Your task to perform on an android device: toggle notification dots Image 0: 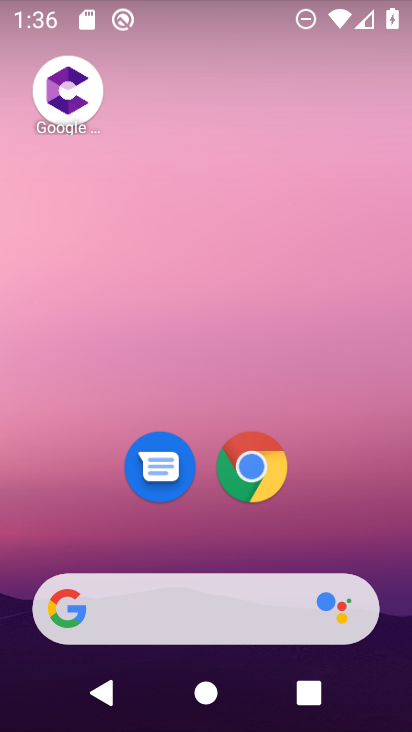
Step 0: drag from (81, 560) to (171, 56)
Your task to perform on an android device: toggle notification dots Image 1: 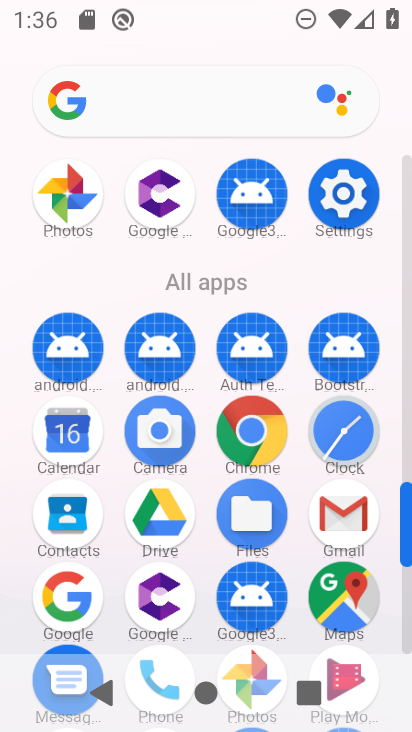
Step 1: drag from (187, 552) to (244, 324)
Your task to perform on an android device: toggle notification dots Image 2: 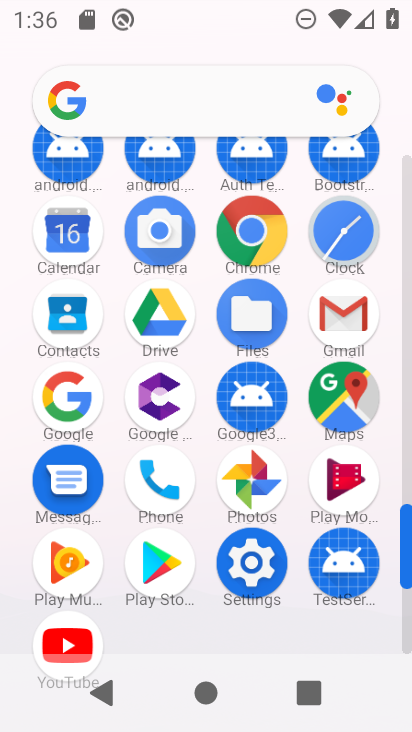
Step 2: click (250, 574)
Your task to perform on an android device: toggle notification dots Image 3: 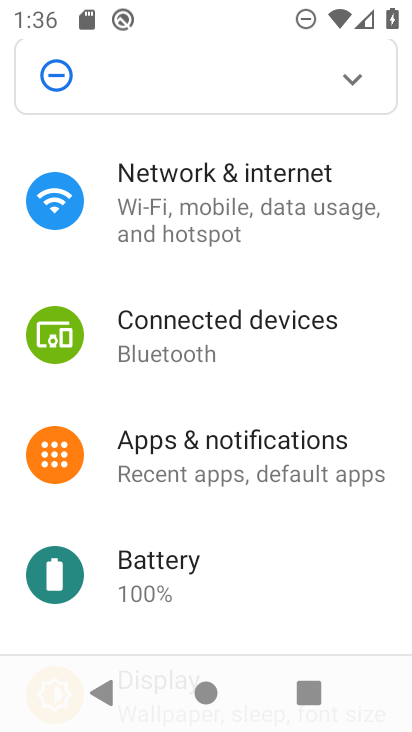
Step 3: drag from (189, 567) to (313, 121)
Your task to perform on an android device: toggle notification dots Image 4: 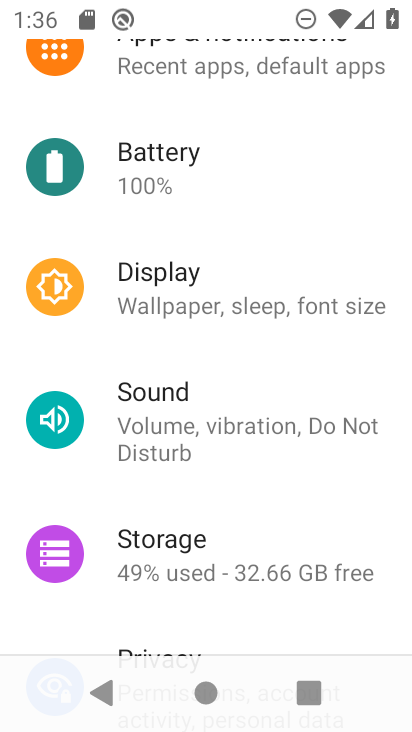
Step 4: click (276, 73)
Your task to perform on an android device: toggle notification dots Image 5: 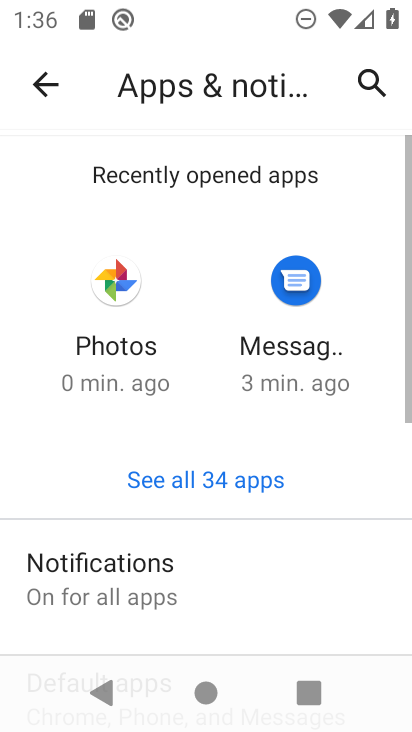
Step 5: drag from (193, 527) to (321, 75)
Your task to perform on an android device: toggle notification dots Image 6: 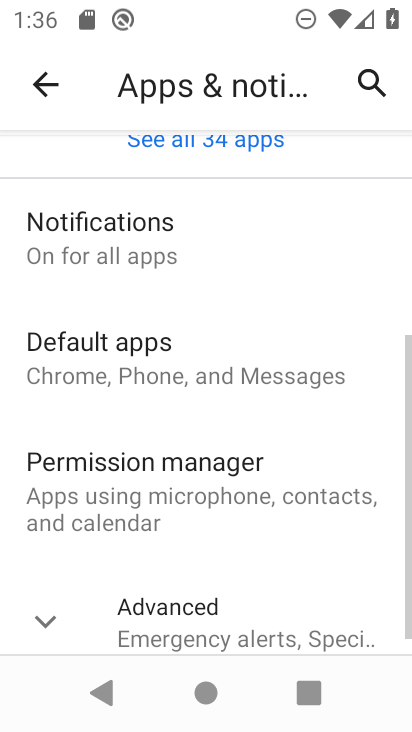
Step 6: drag from (147, 534) to (329, 319)
Your task to perform on an android device: toggle notification dots Image 7: 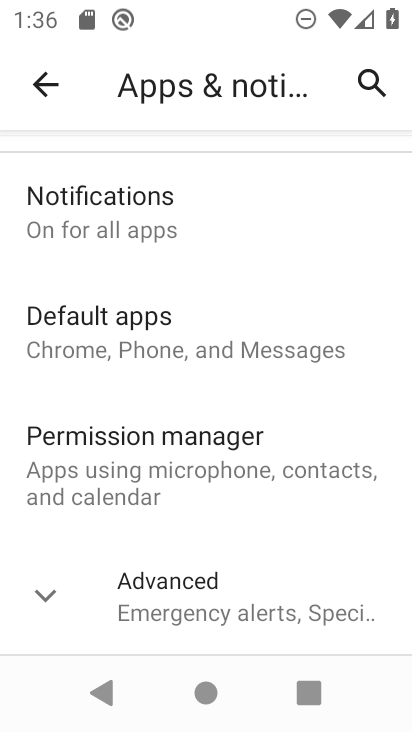
Step 7: click (181, 237)
Your task to perform on an android device: toggle notification dots Image 8: 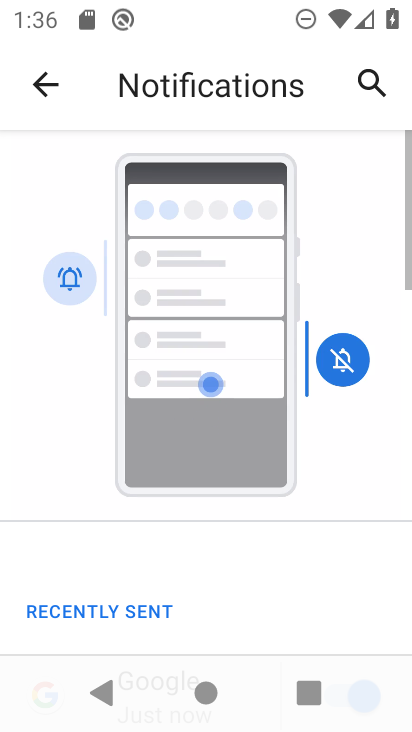
Step 8: drag from (161, 611) to (308, 107)
Your task to perform on an android device: toggle notification dots Image 9: 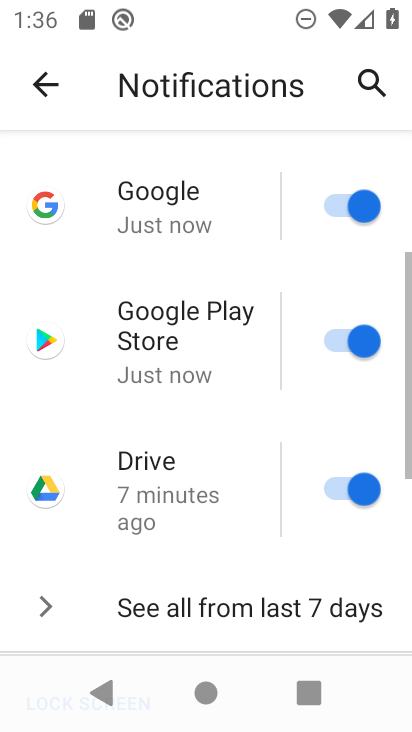
Step 9: drag from (215, 560) to (346, 146)
Your task to perform on an android device: toggle notification dots Image 10: 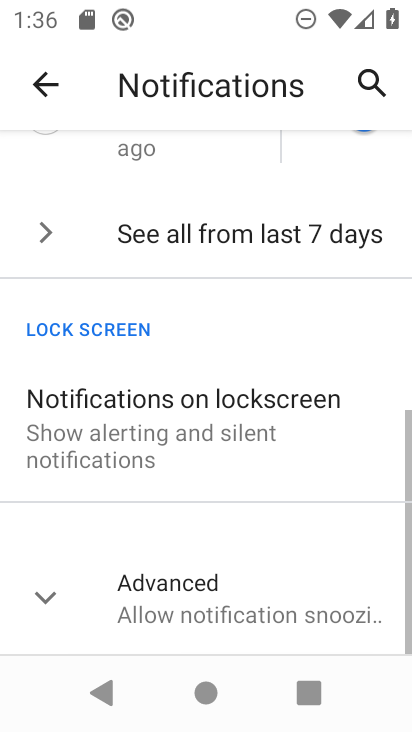
Step 10: click (230, 592)
Your task to perform on an android device: toggle notification dots Image 11: 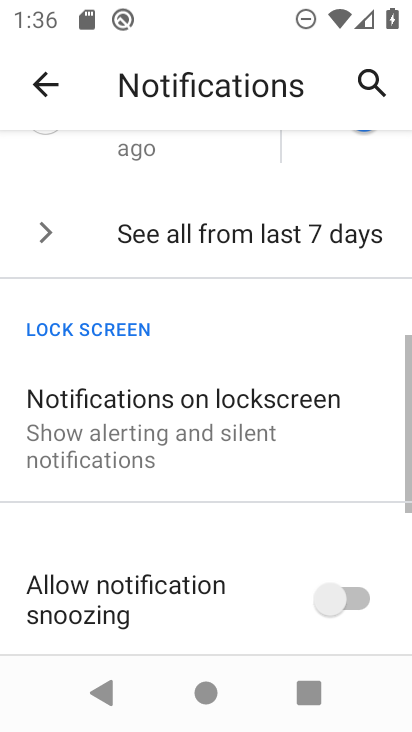
Step 11: drag from (190, 612) to (294, 247)
Your task to perform on an android device: toggle notification dots Image 12: 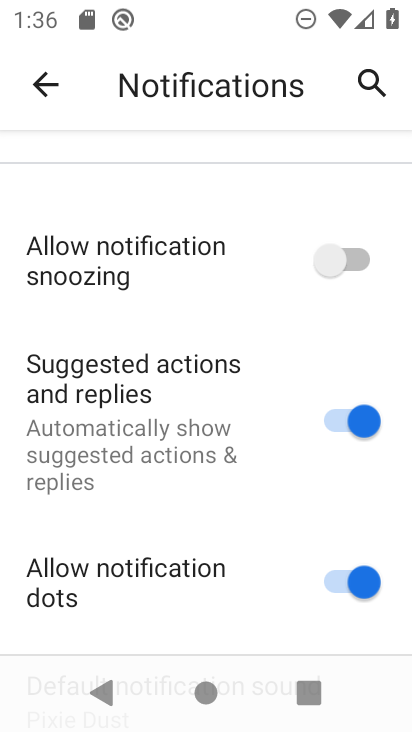
Step 12: drag from (148, 557) to (211, 334)
Your task to perform on an android device: toggle notification dots Image 13: 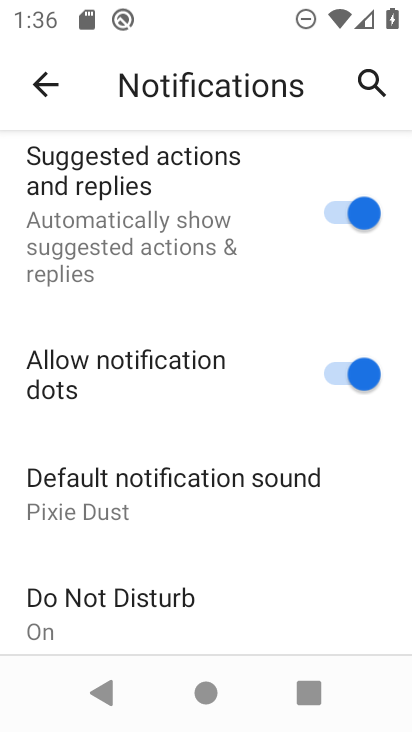
Step 13: click (332, 369)
Your task to perform on an android device: toggle notification dots Image 14: 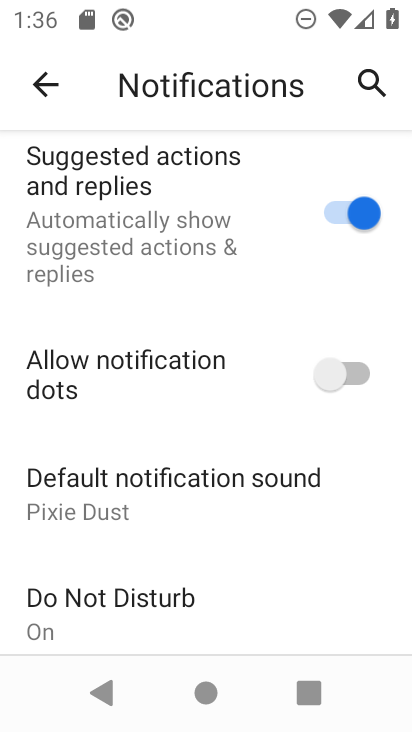
Step 14: task complete